Your task to perform on an android device: Play the new Taylor Swift video on YouTube Image 0: 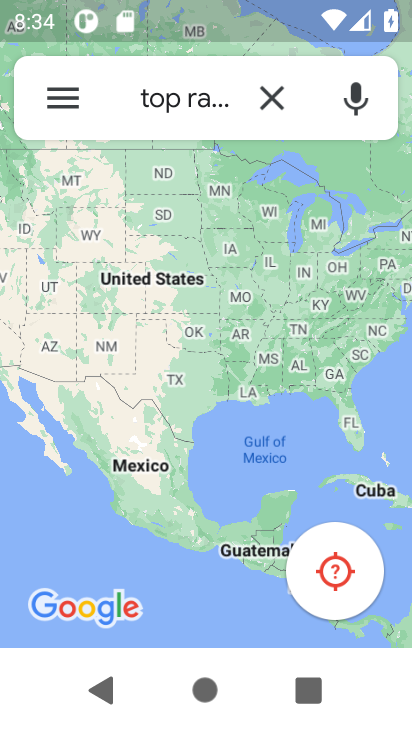
Step 0: press home button
Your task to perform on an android device: Play the new Taylor Swift video on YouTube Image 1: 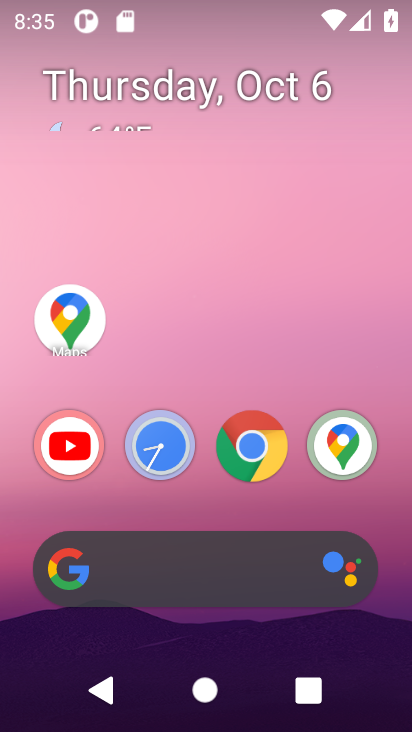
Step 1: click (87, 454)
Your task to perform on an android device: Play the new Taylor Swift video on YouTube Image 2: 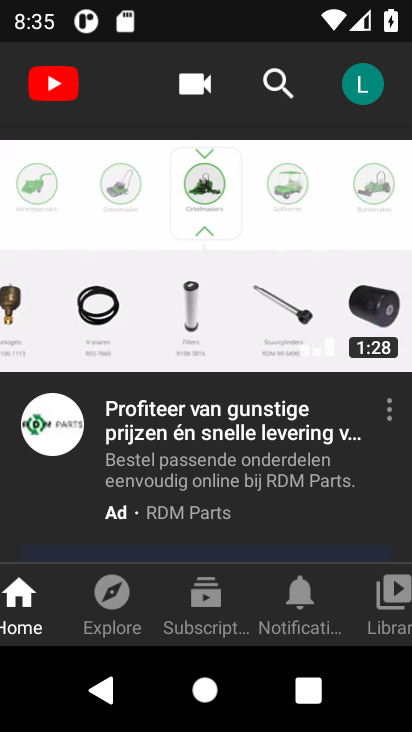
Step 2: click (269, 94)
Your task to perform on an android device: Play the new Taylor Swift video on YouTube Image 3: 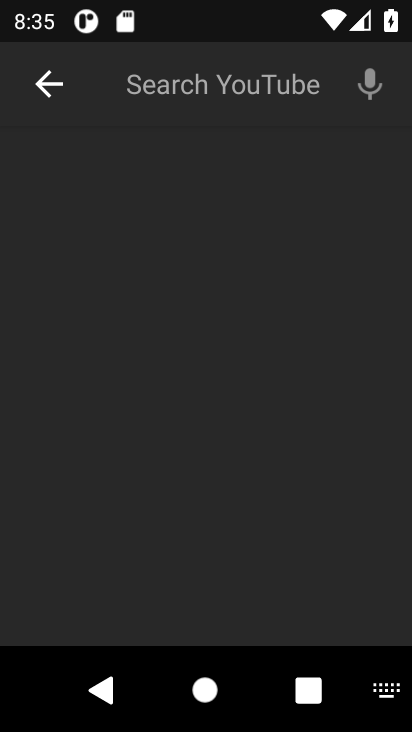
Step 3: type " new Taylor Swift video"
Your task to perform on an android device: Play the new Taylor Swift video on YouTube Image 4: 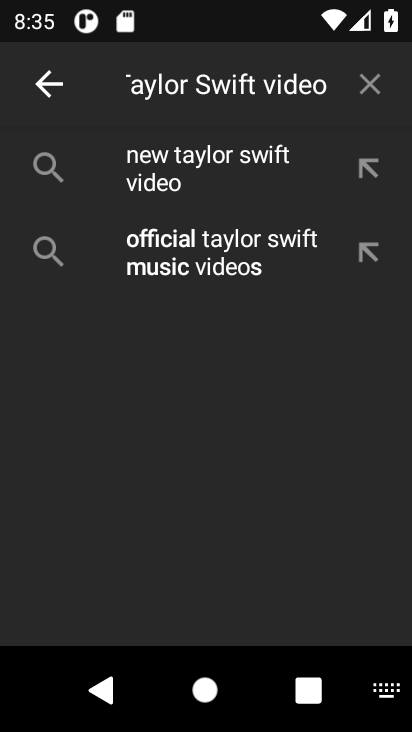
Step 4: click (138, 140)
Your task to perform on an android device: Play the new Taylor Swift video on YouTube Image 5: 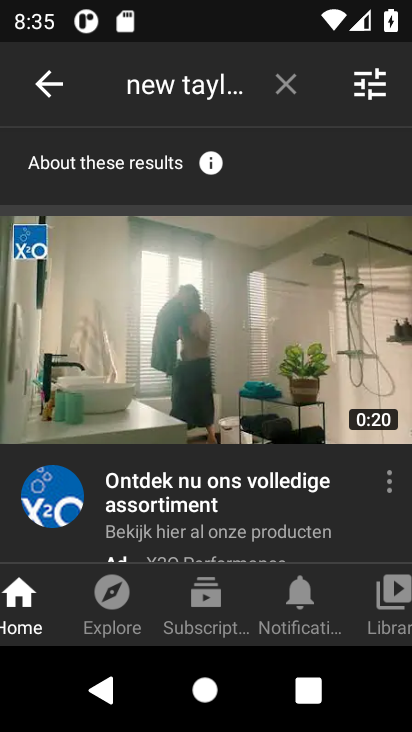
Step 5: click (179, 386)
Your task to perform on an android device: Play the new Taylor Swift video on YouTube Image 6: 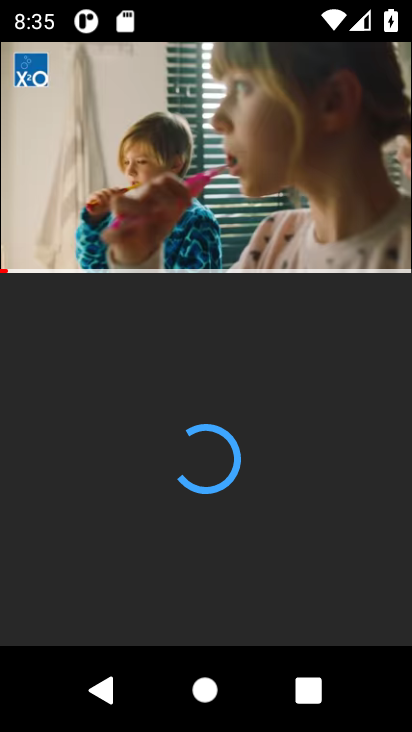
Step 6: task complete